Your task to perform on an android device: Is it going to rain tomorrow? Image 0: 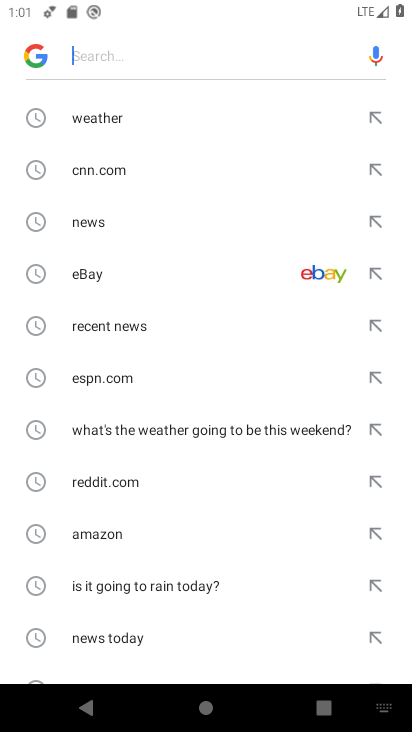
Step 0: click (243, 103)
Your task to perform on an android device: Is it going to rain tomorrow? Image 1: 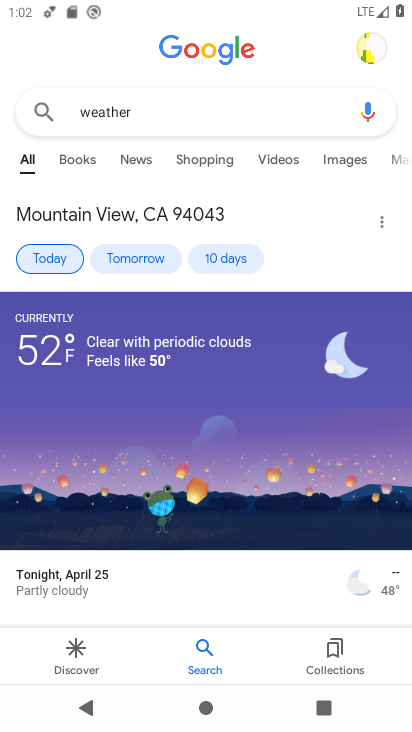
Step 1: click (155, 258)
Your task to perform on an android device: Is it going to rain tomorrow? Image 2: 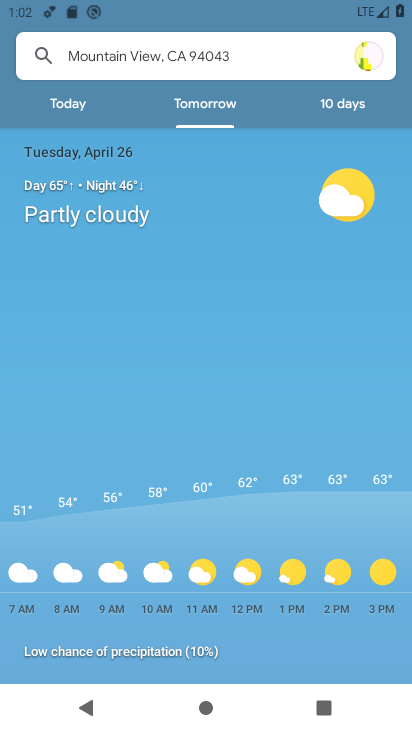
Step 2: task complete